Your task to perform on an android device: change the clock display to digital Image 0: 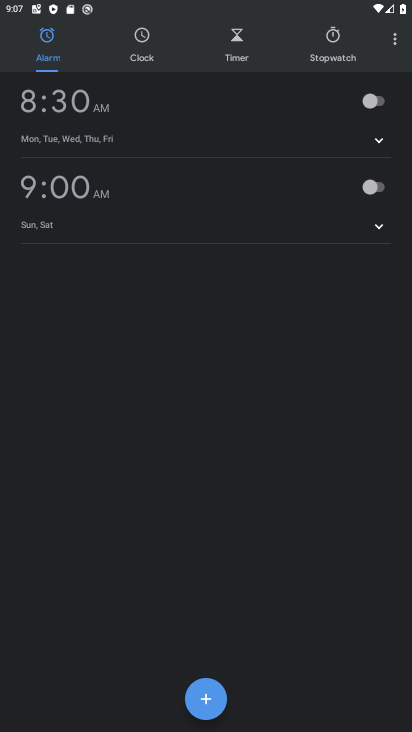
Step 0: click (390, 37)
Your task to perform on an android device: change the clock display to digital Image 1: 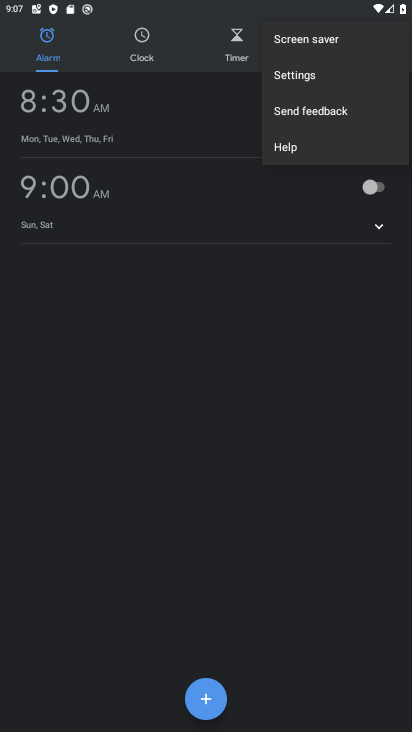
Step 1: click (348, 78)
Your task to perform on an android device: change the clock display to digital Image 2: 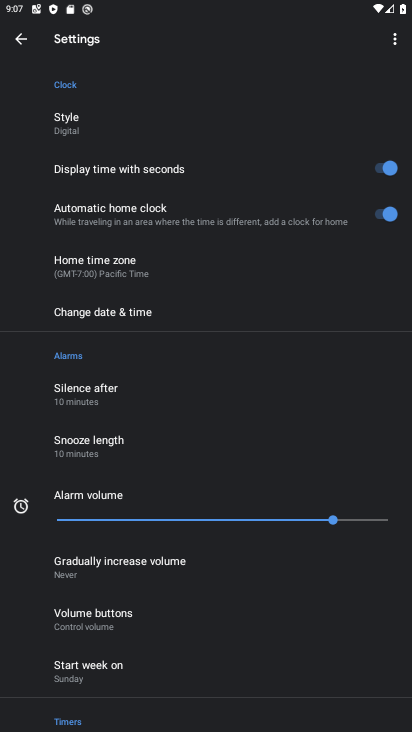
Step 2: click (97, 122)
Your task to perform on an android device: change the clock display to digital Image 3: 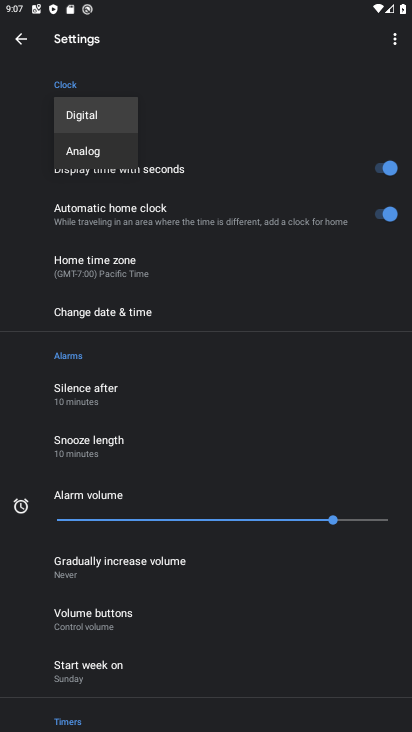
Step 3: task complete